Your task to perform on an android device: check battery use Image 0: 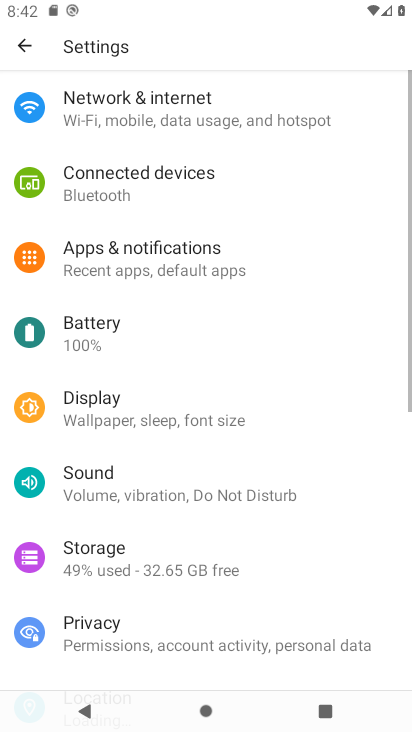
Step 0: press home button
Your task to perform on an android device: check battery use Image 1: 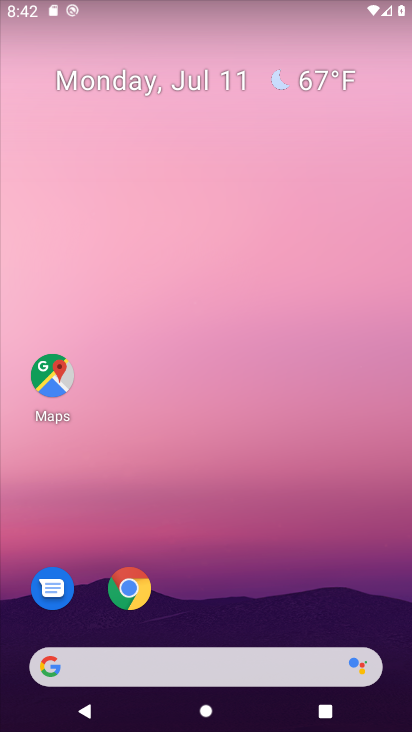
Step 1: drag from (352, 622) to (277, 91)
Your task to perform on an android device: check battery use Image 2: 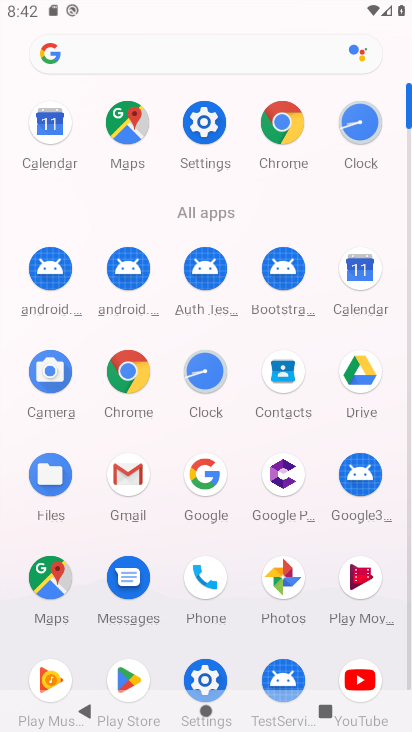
Step 2: click (206, 123)
Your task to perform on an android device: check battery use Image 3: 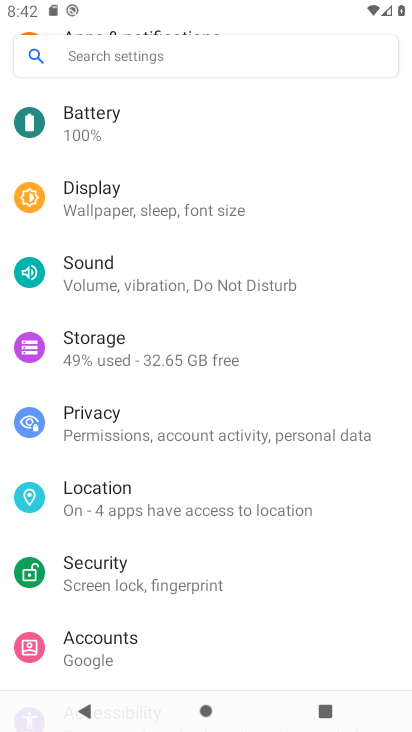
Step 3: click (130, 111)
Your task to perform on an android device: check battery use Image 4: 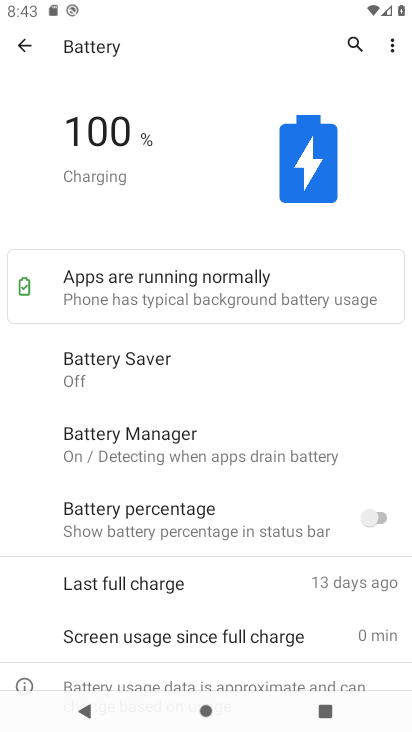
Step 4: click (394, 45)
Your task to perform on an android device: check battery use Image 5: 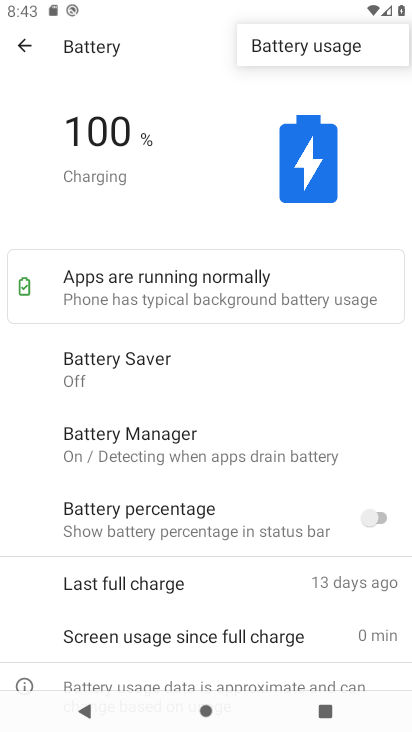
Step 5: click (339, 53)
Your task to perform on an android device: check battery use Image 6: 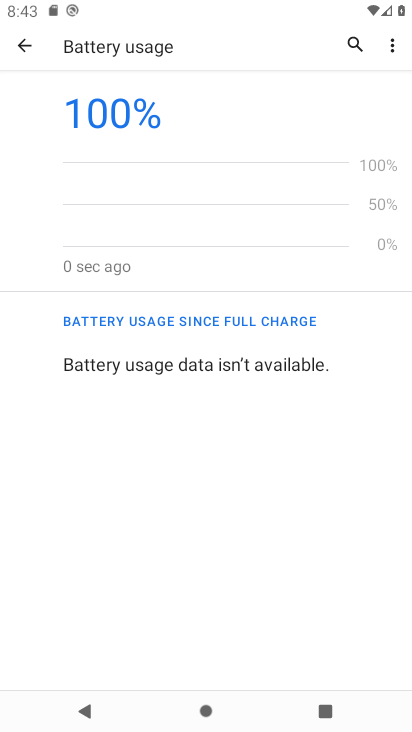
Step 6: task complete